Your task to perform on an android device: delete a single message in the gmail app Image 0: 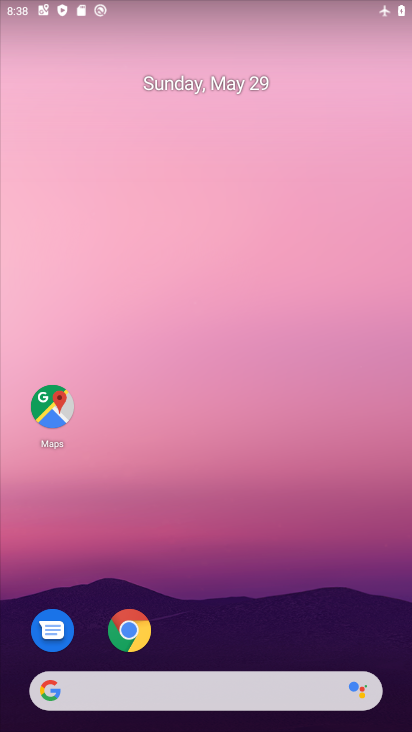
Step 0: drag from (225, 650) to (95, 125)
Your task to perform on an android device: delete a single message in the gmail app Image 1: 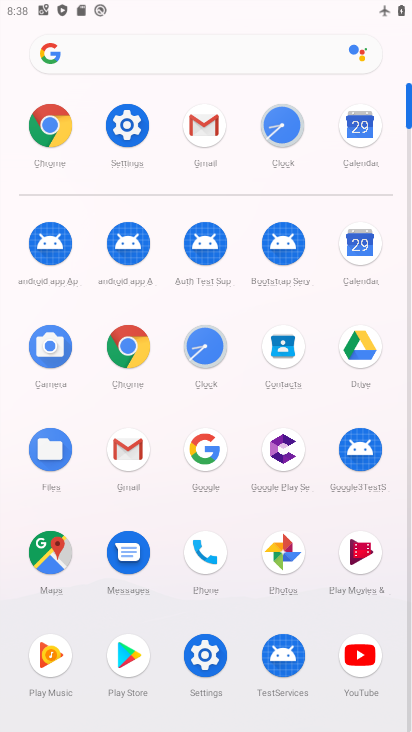
Step 1: click (124, 461)
Your task to perform on an android device: delete a single message in the gmail app Image 2: 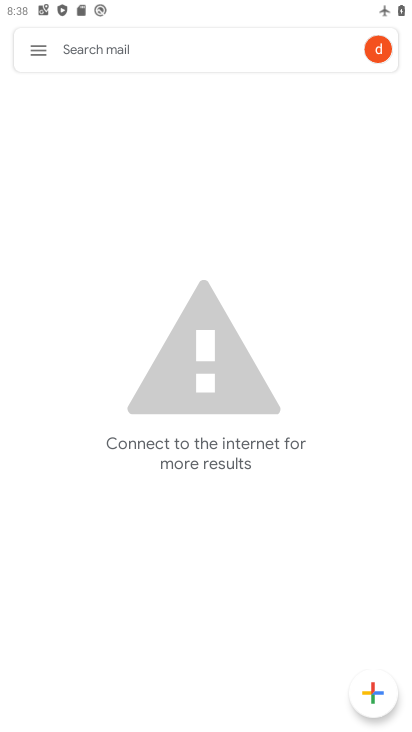
Step 2: click (47, 53)
Your task to perform on an android device: delete a single message in the gmail app Image 3: 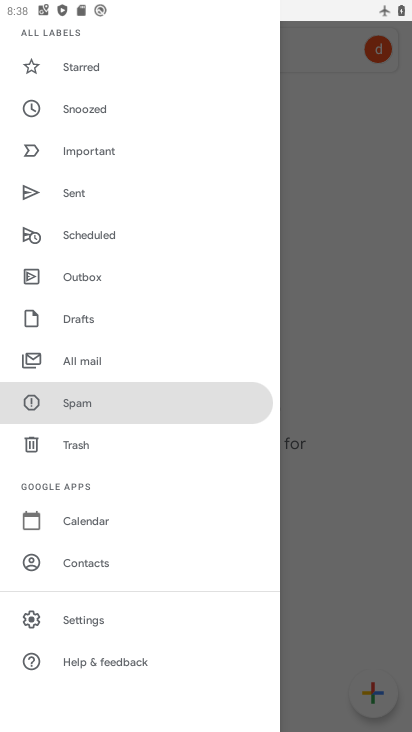
Step 3: click (97, 361)
Your task to perform on an android device: delete a single message in the gmail app Image 4: 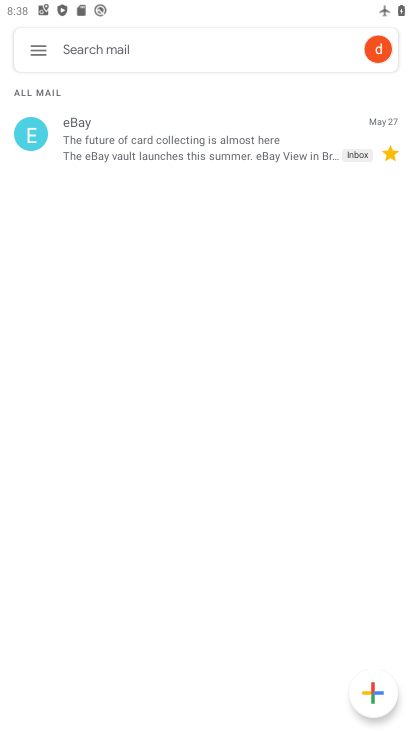
Step 4: click (214, 134)
Your task to perform on an android device: delete a single message in the gmail app Image 5: 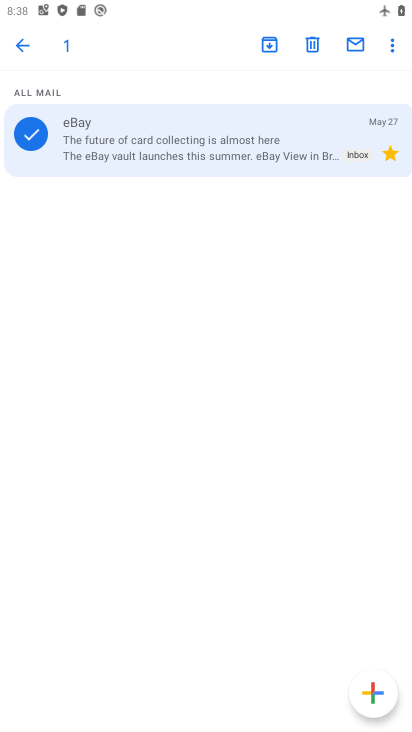
Step 5: click (316, 46)
Your task to perform on an android device: delete a single message in the gmail app Image 6: 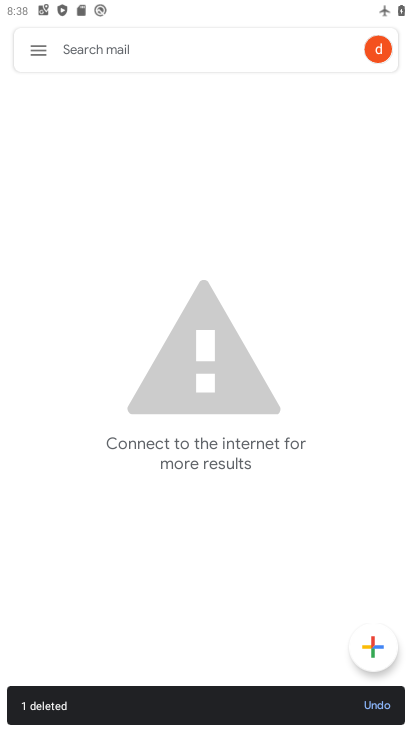
Step 6: task complete